Your task to perform on an android device: toggle notification dots Image 0: 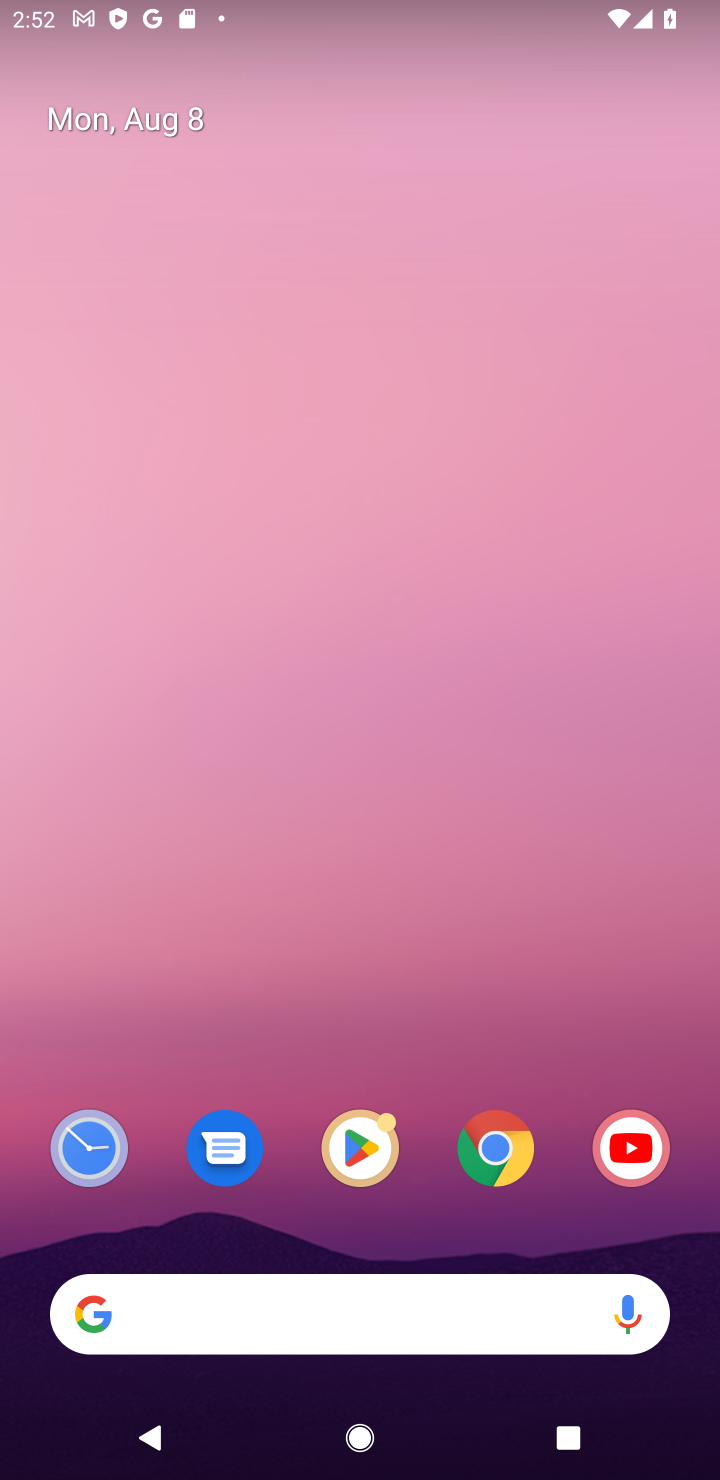
Step 0: drag from (348, 1061) to (392, 155)
Your task to perform on an android device: toggle notification dots Image 1: 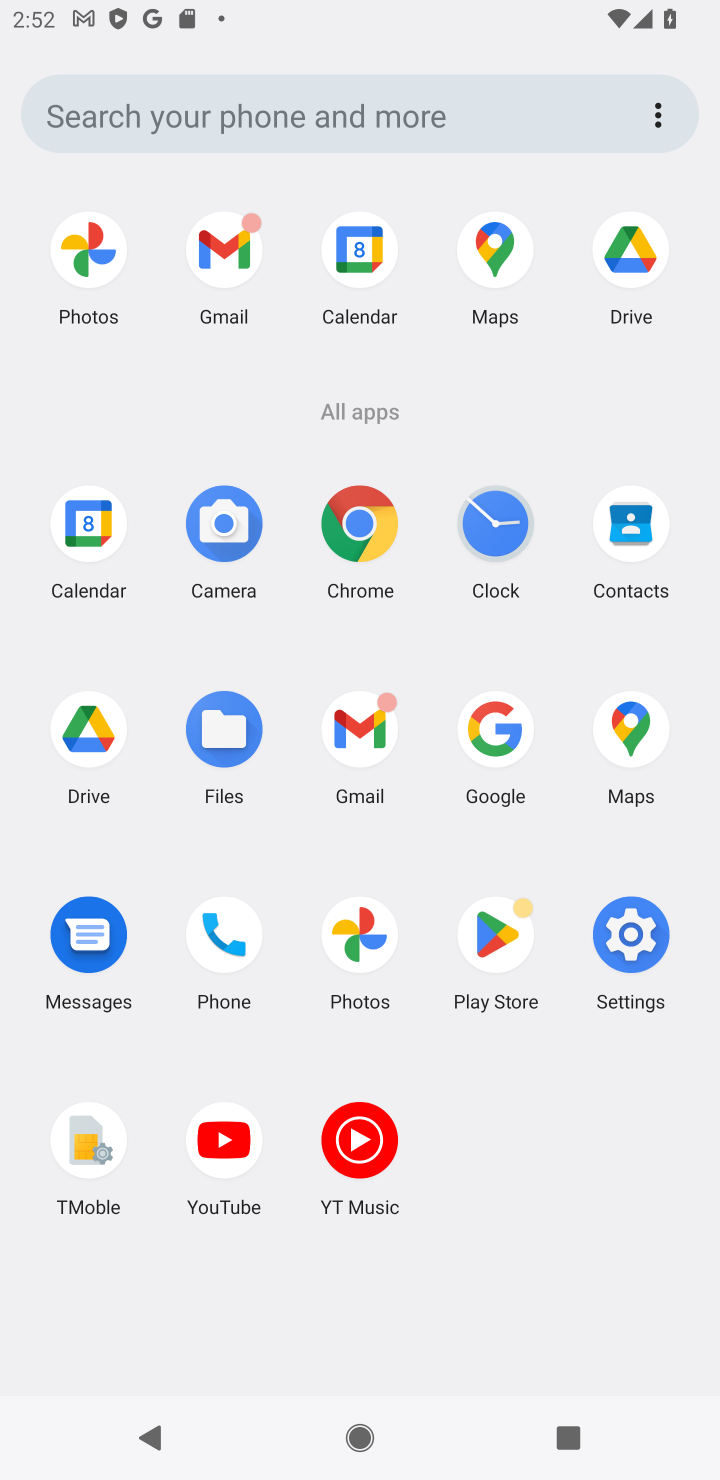
Step 1: click (635, 947)
Your task to perform on an android device: toggle notification dots Image 2: 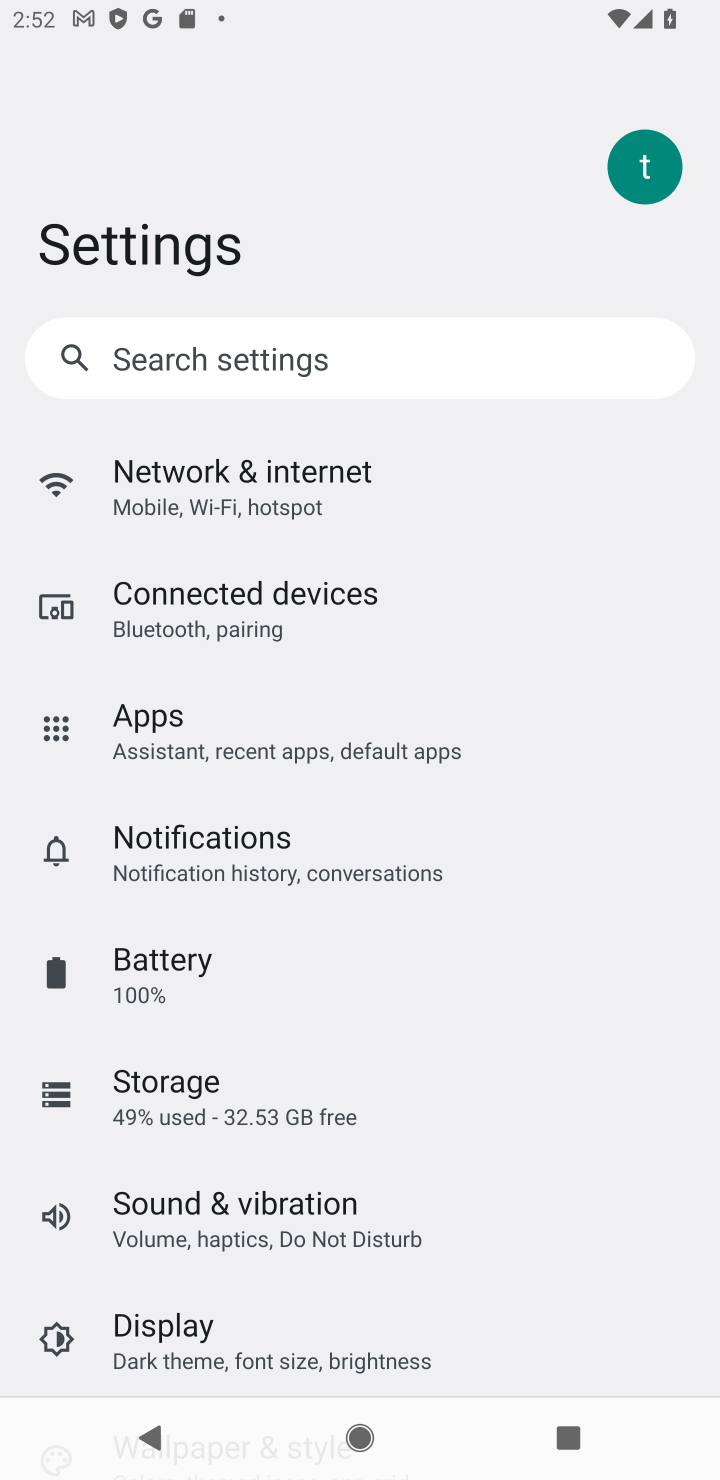
Step 2: click (302, 841)
Your task to perform on an android device: toggle notification dots Image 3: 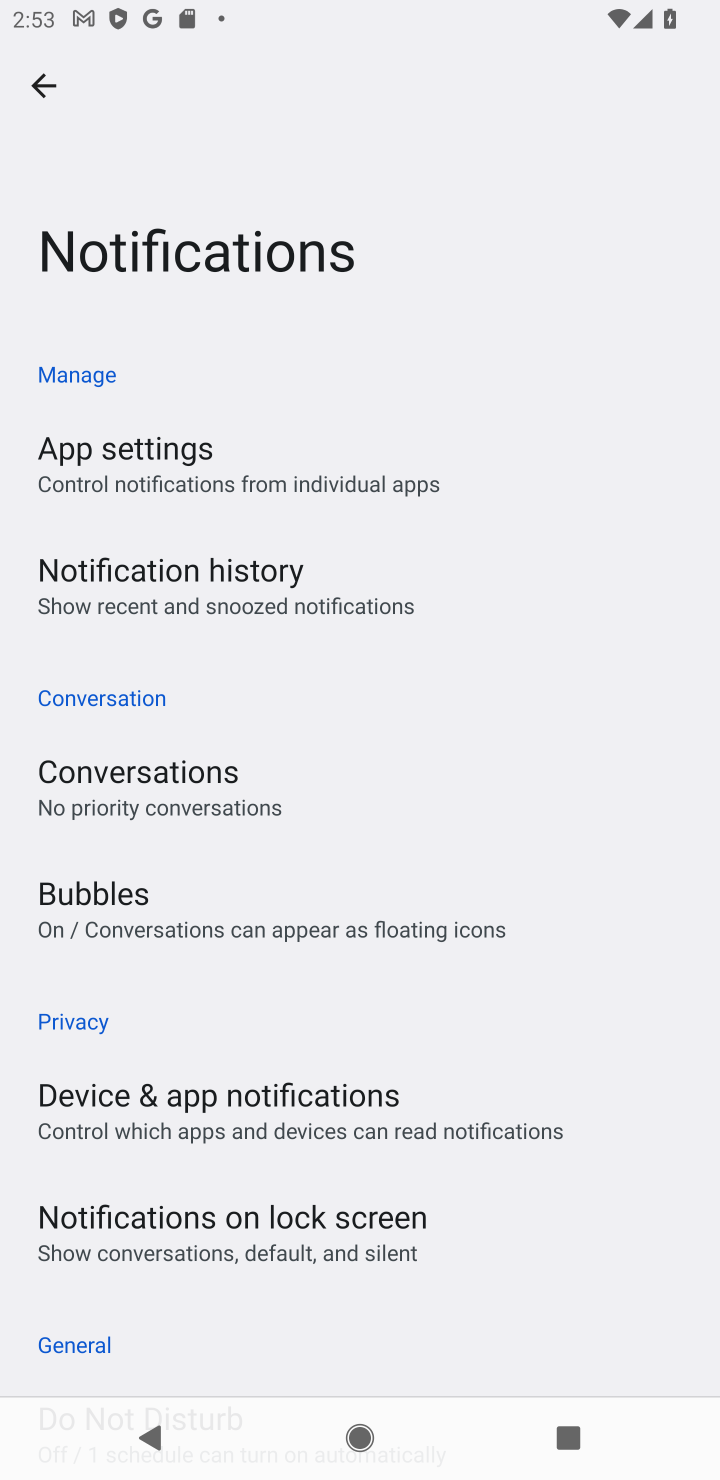
Step 3: drag from (289, 1282) to (183, 410)
Your task to perform on an android device: toggle notification dots Image 4: 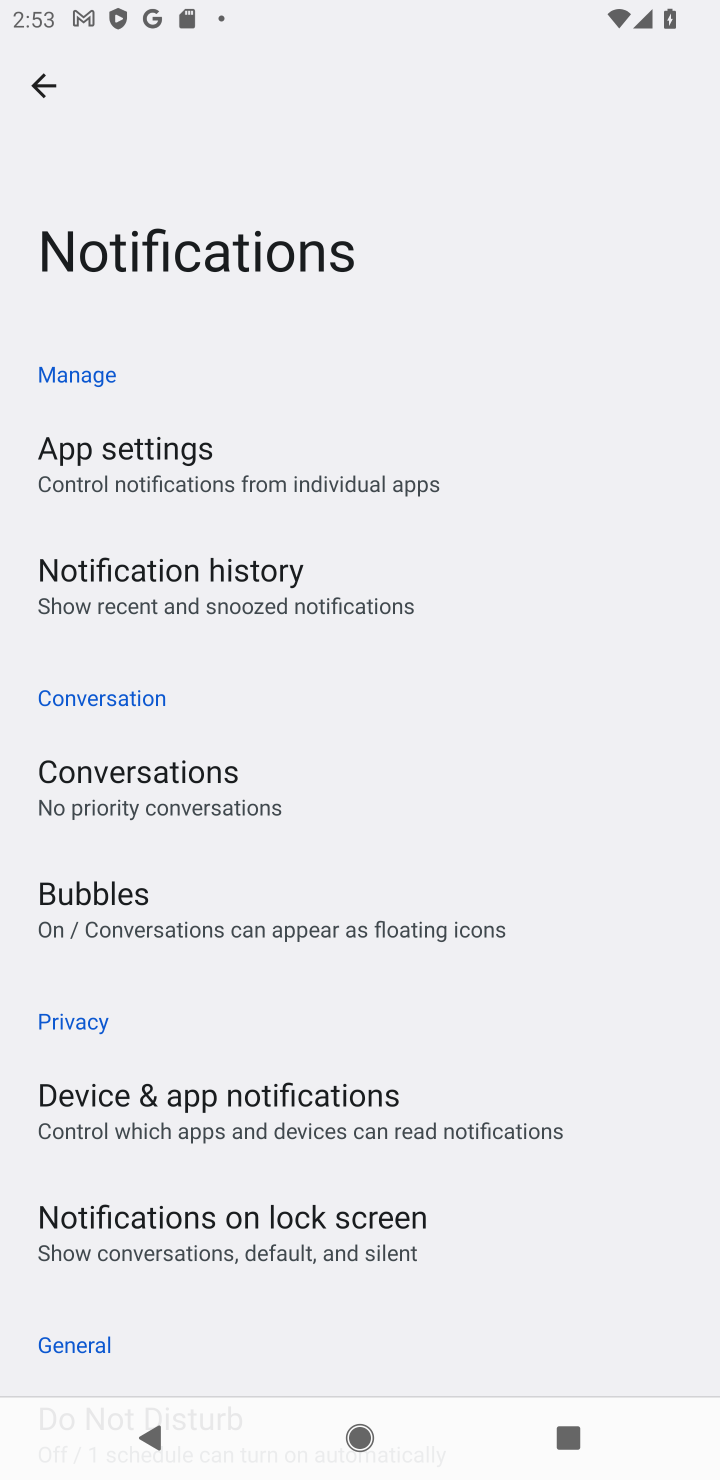
Step 4: drag from (259, 1157) to (270, 410)
Your task to perform on an android device: toggle notification dots Image 5: 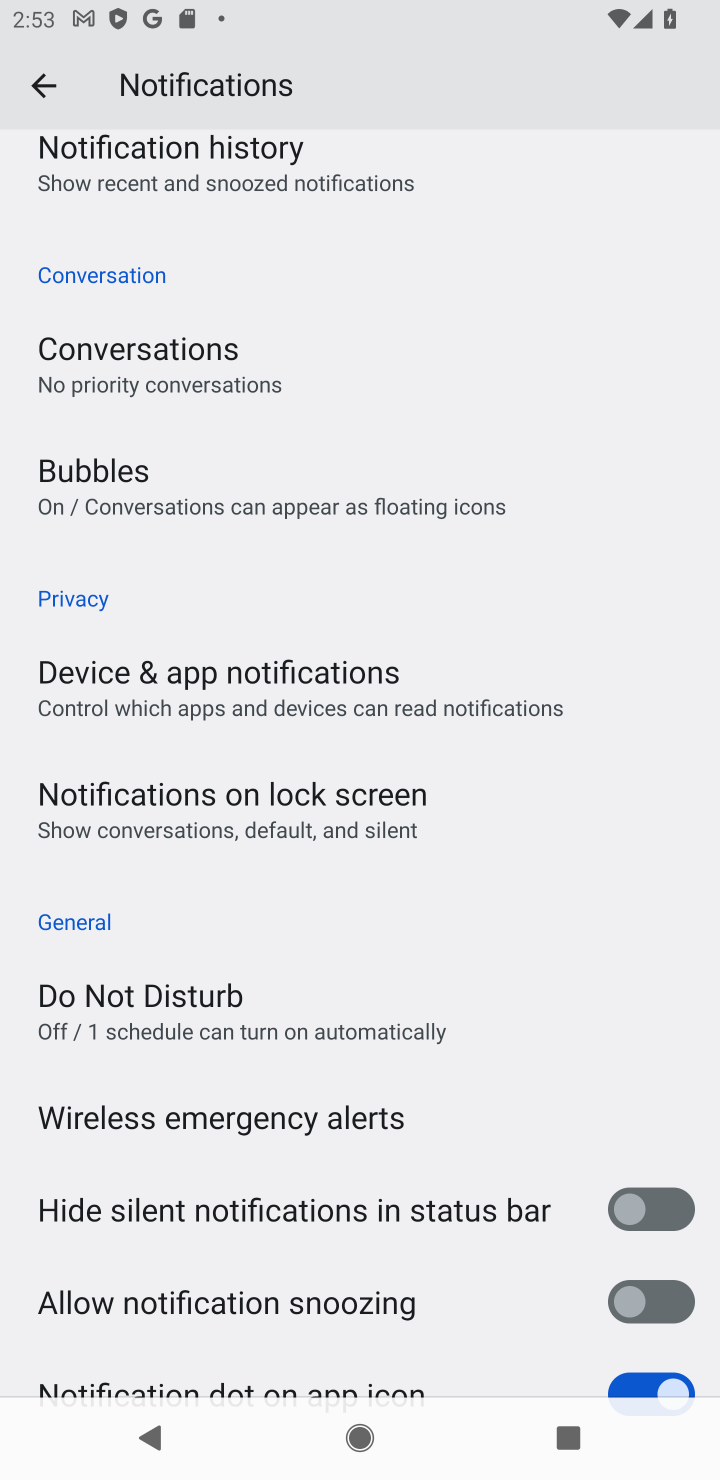
Step 5: drag from (330, 1225) to (329, 846)
Your task to perform on an android device: toggle notification dots Image 6: 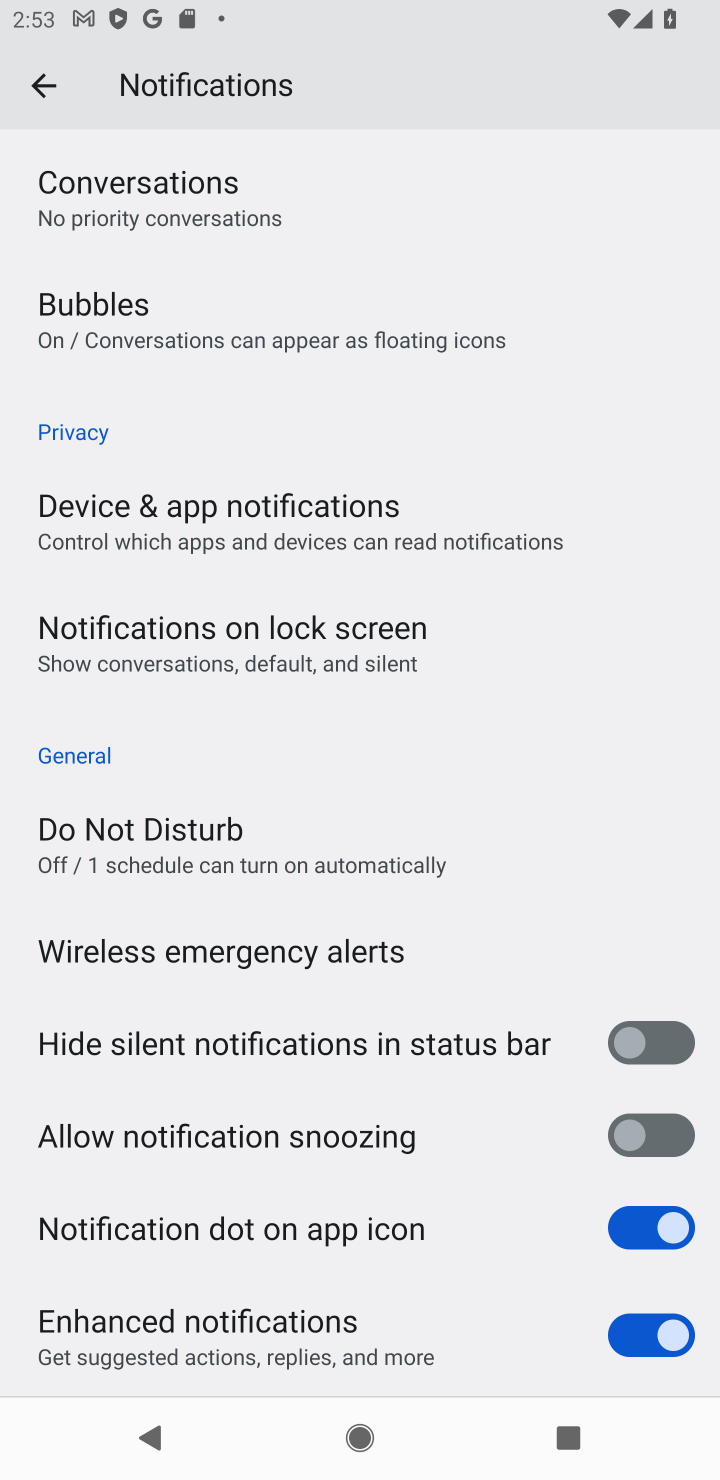
Step 6: click (639, 1230)
Your task to perform on an android device: toggle notification dots Image 7: 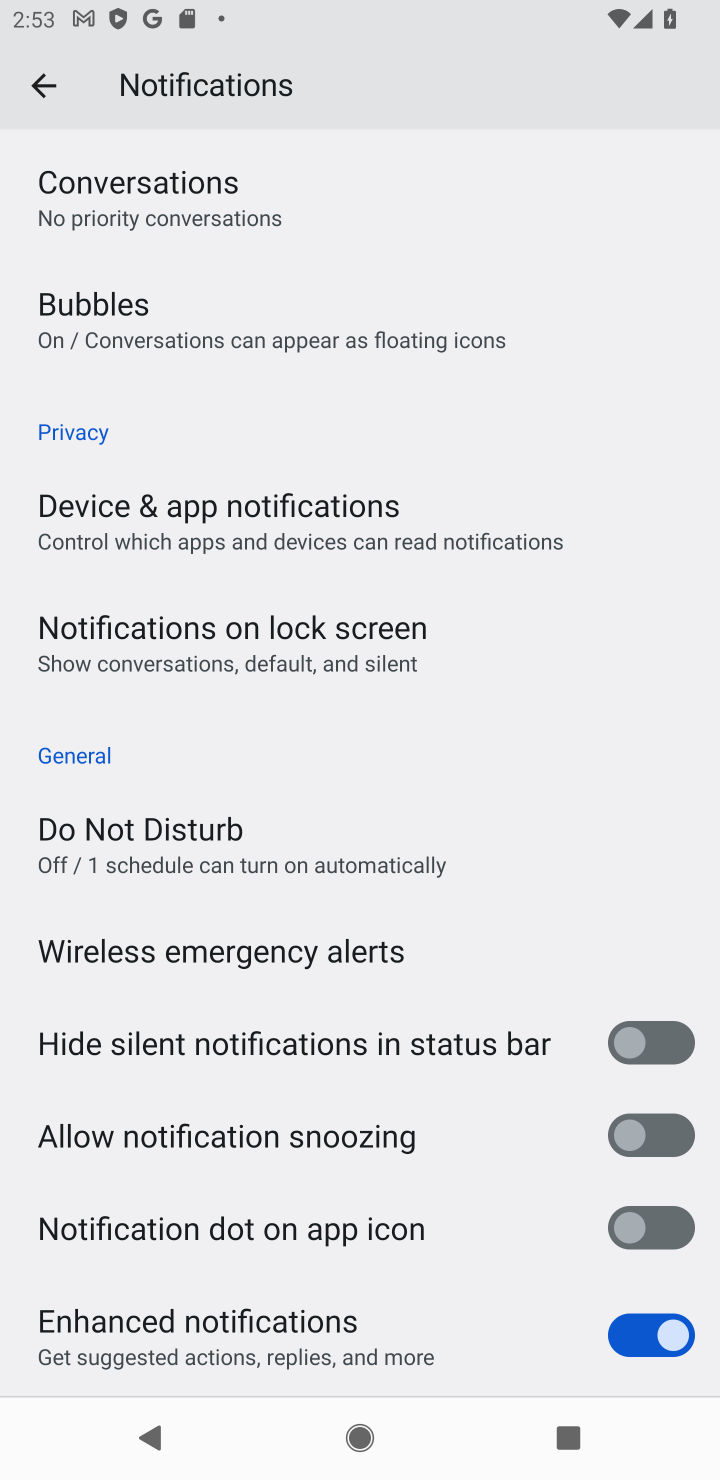
Step 7: task complete